Your task to perform on an android device: allow notifications from all sites in the chrome app Image 0: 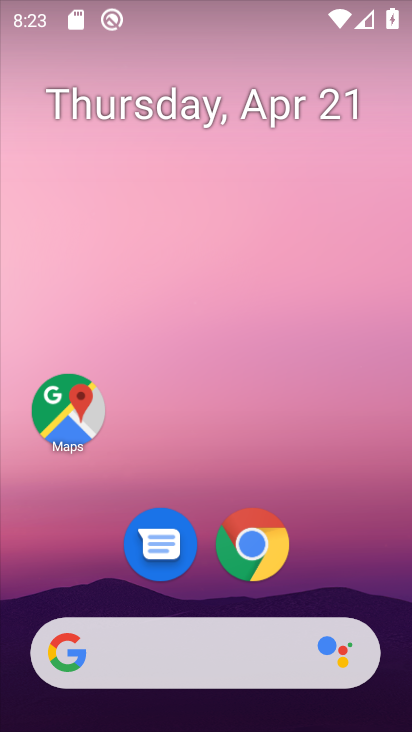
Step 0: click (255, 544)
Your task to perform on an android device: allow notifications from all sites in the chrome app Image 1: 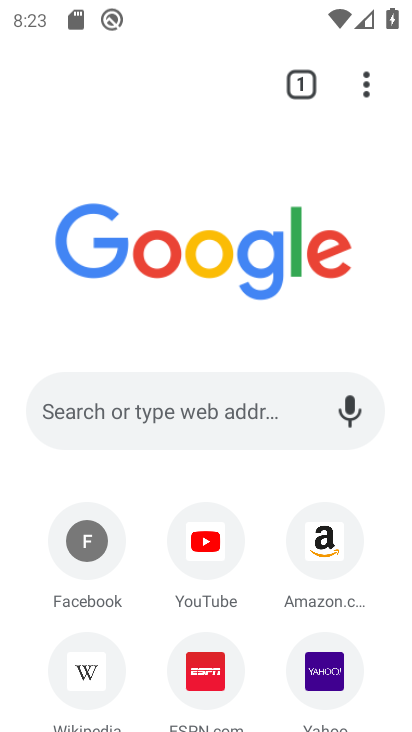
Step 1: click (368, 94)
Your task to perform on an android device: allow notifications from all sites in the chrome app Image 2: 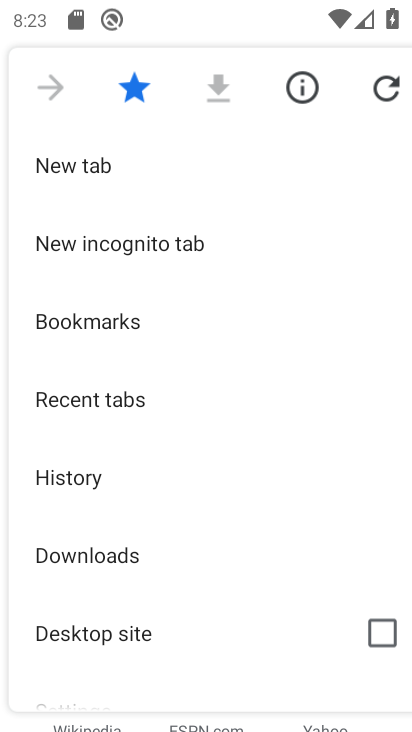
Step 2: drag from (180, 658) to (170, 306)
Your task to perform on an android device: allow notifications from all sites in the chrome app Image 3: 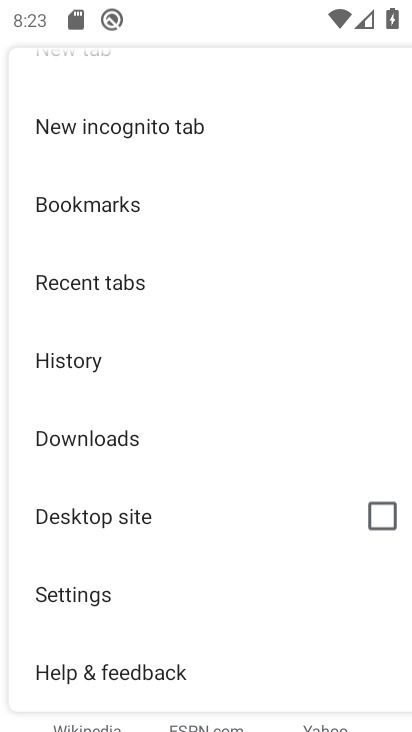
Step 3: click (70, 591)
Your task to perform on an android device: allow notifications from all sites in the chrome app Image 4: 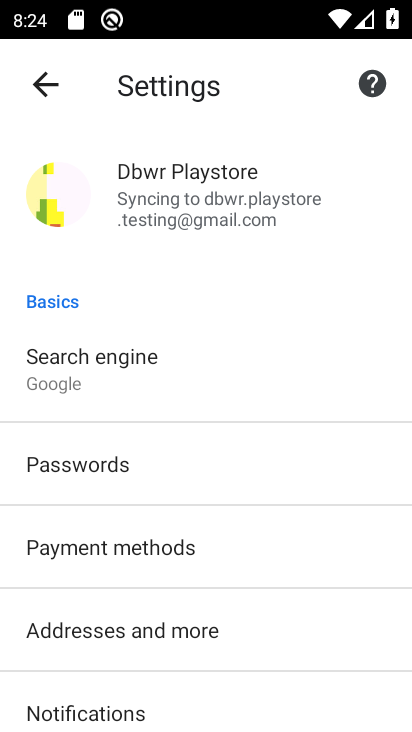
Step 4: drag from (175, 688) to (186, 291)
Your task to perform on an android device: allow notifications from all sites in the chrome app Image 5: 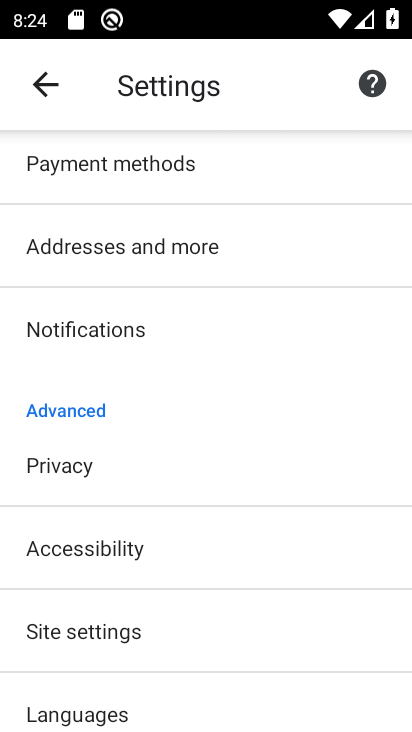
Step 5: drag from (159, 695) to (169, 493)
Your task to perform on an android device: allow notifications from all sites in the chrome app Image 6: 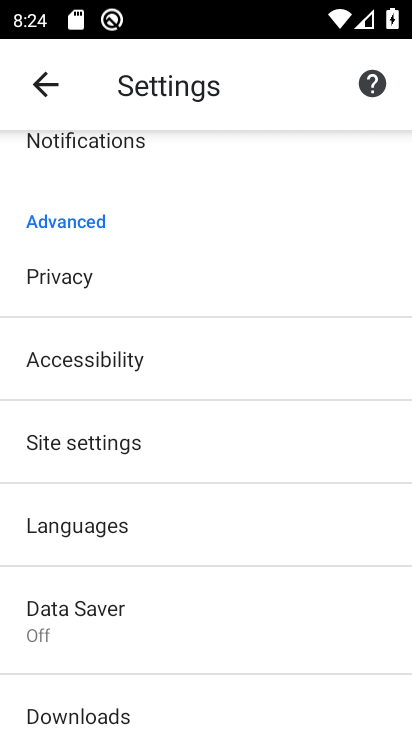
Step 6: click (99, 442)
Your task to perform on an android device: allow notifications from all sites in the chrome app Image 7: 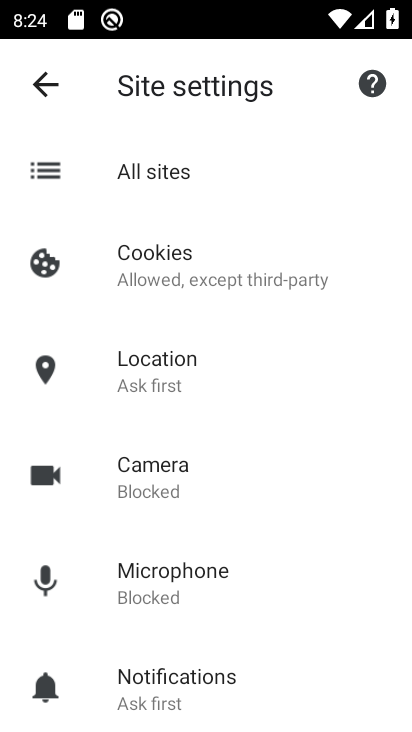
Step 7: drag from (178, 625) to (179, 371)
Your task to perform on an android device: allow notifications from all sites in the chrome app Image 8: 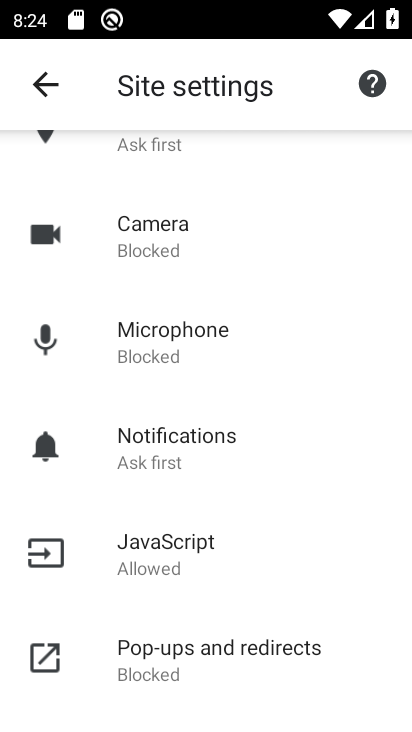
Step 8: click (151, 436)
Your task to perform on an android device: allow notifications from all sites in the chrome app Image 9: 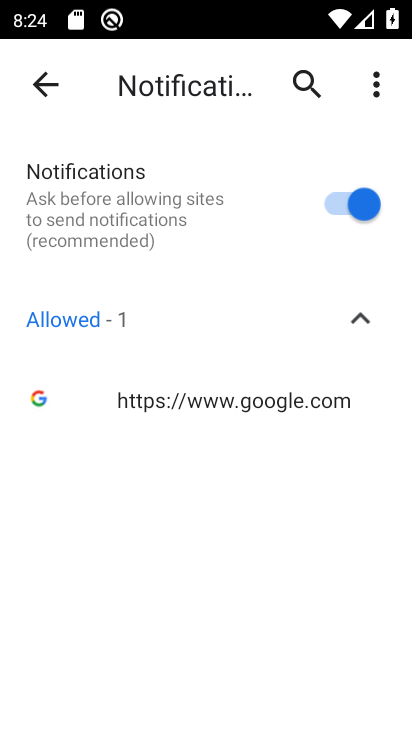
Step 9: task complete